Your task to perform on an android device: delete a single message in the gmail app Image 0: 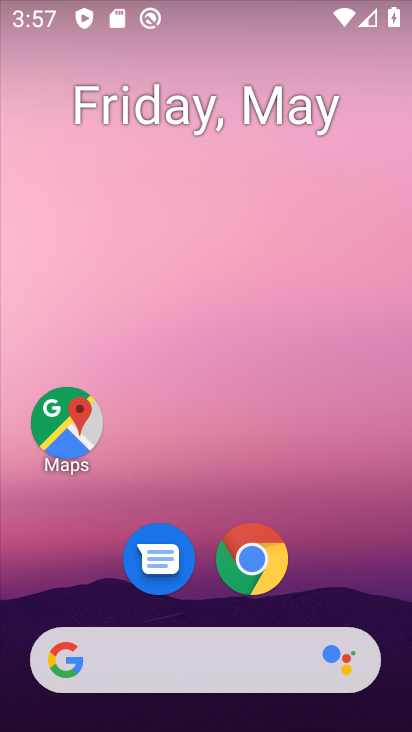
Step 0: drag from (338, 611) to (307, 120)
Your task to perform on an android device: delete a single message in the gmail app Image 1: 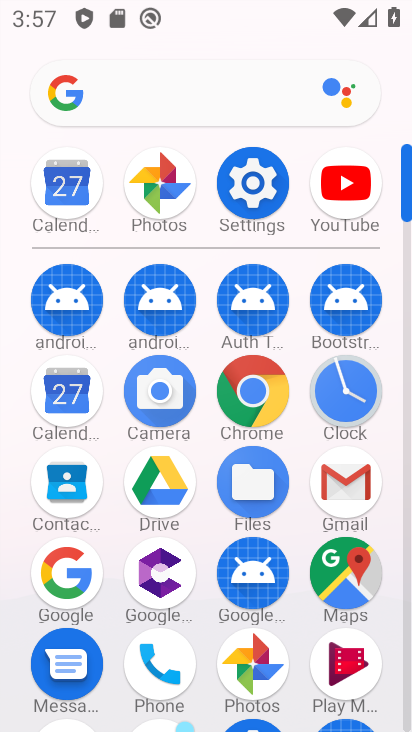
Step 1: click (363, 477)
Your task to perform on an android device: delete a single message in the gmail app Image 2: 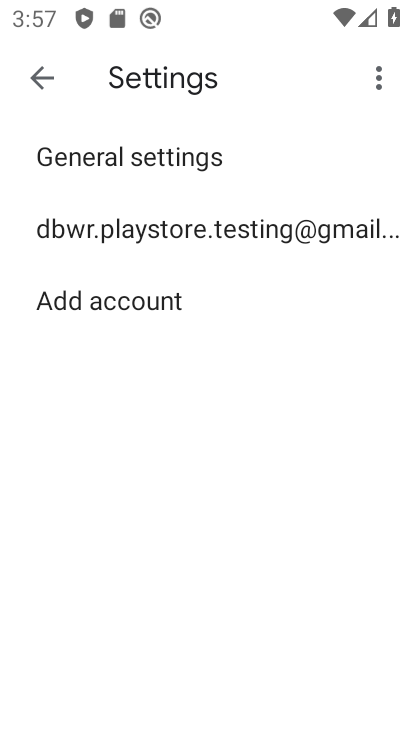
Step 2: click (37, 70)
Your task to perform on an android device: delete a single message in the gmail app Image 3: 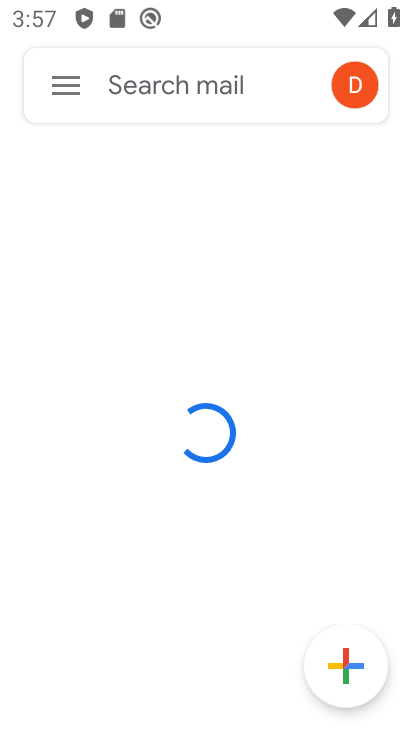
Step 3: click (49, 89)
Your task to perform on an android device: delete a single message in the gmail app Image 4: 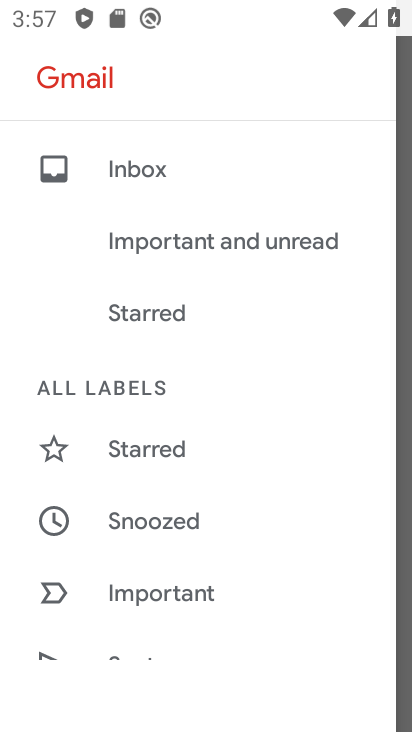
Step 4: drag from (243, 630) to (265, 354)
Your task to perform on an android device: delete a single message in the gmail app Image 5: 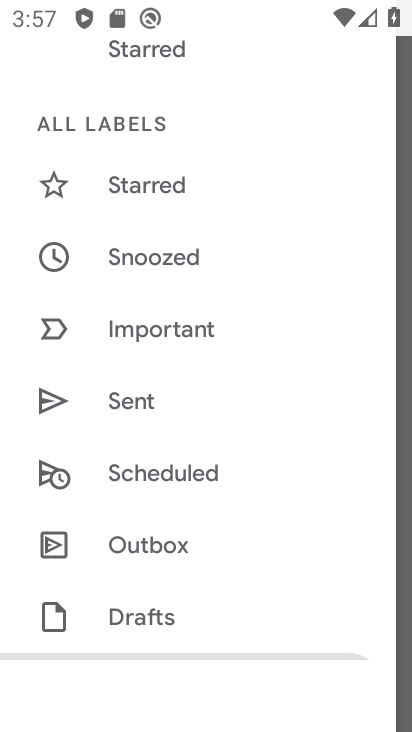
Step 5: drag from (207, 559) to (218, 363)
Your task to perform on an android device: delete a single message in the gmail app Image 6: 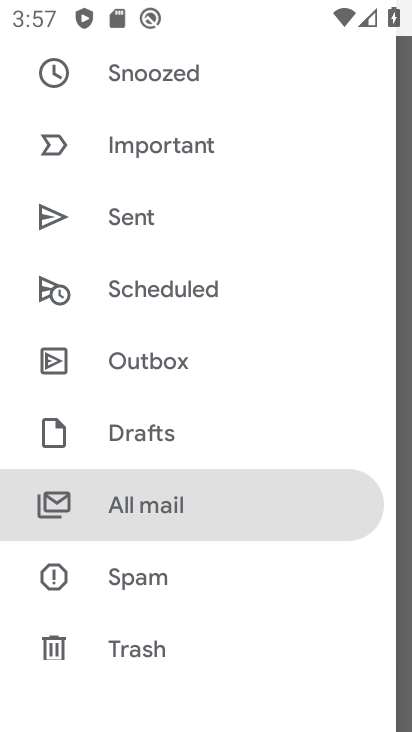
Step 6: click (237, 513)
Your task to perform on an android device: delete a single message in the gmail app Image 7: 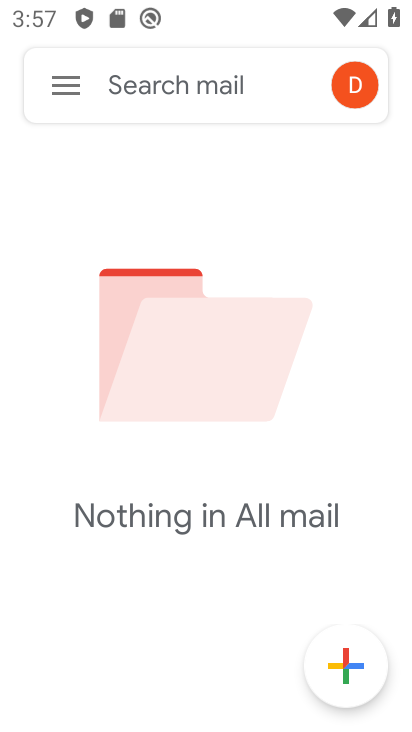
Step 7: task complete